Your task to perform on an android device: change the clock display to digital Image 0: 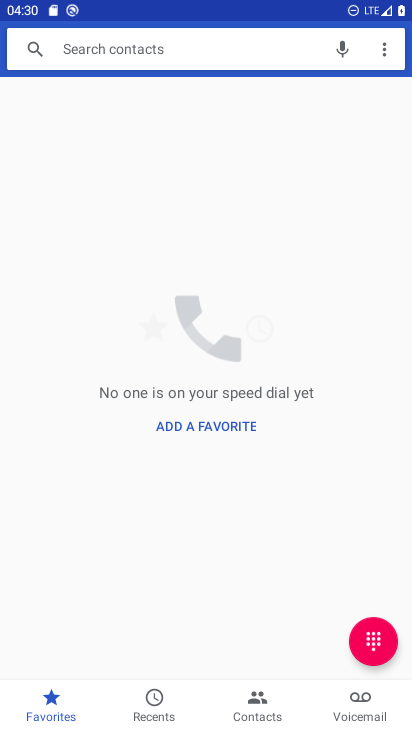
Step 0: press home button
Your task to perform on an android device: change the clock display to digital Image 1: 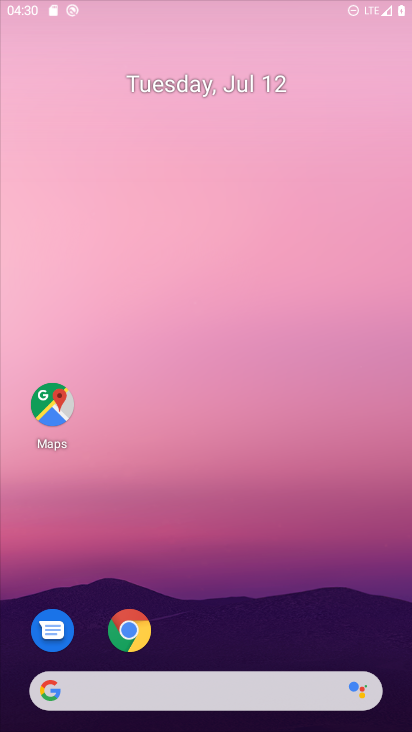
Step 1: drag from (314, 705) to (284, 31)
Your task to perform on an android device: change the clock display to digital Image 2: 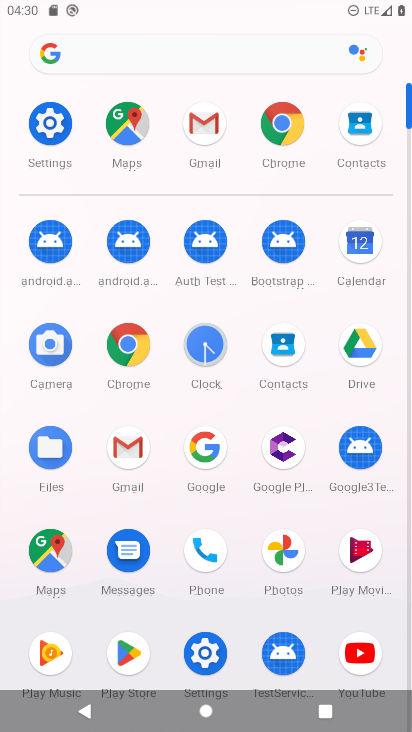
Step 2: click (197, 343)
Your task to perform on an android device: change the clock display to digital Image 3: 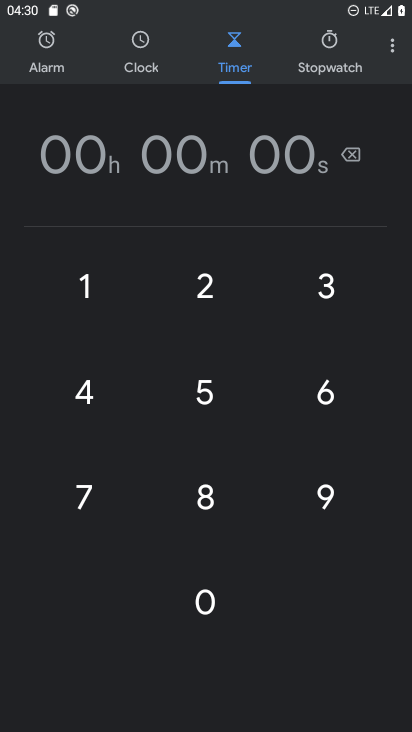
Step 3: click (392, 49)
Your task to perform on an android device: change the clock display to digital Image 4: 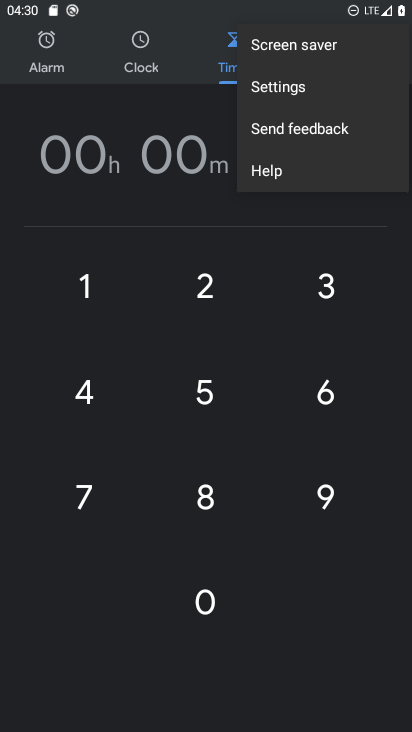
Step 4: click (296, 85)
Your task to perform on an android device: change the clock display to digital Image 5: 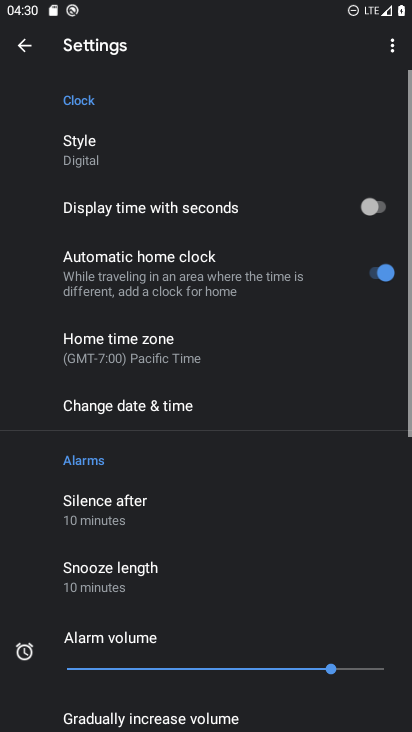
Step 5: click (135, 145)
Your task to perform on an android device: change the clock display to digital Image 6: 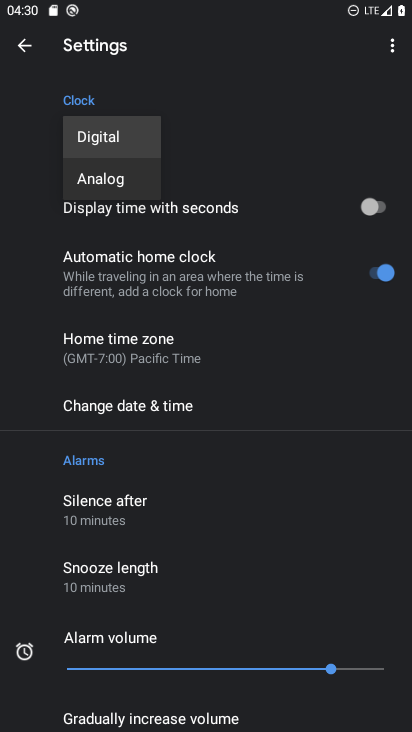
Step 6: click (101, 171)
Your task to perform on an android device: change the clock display to digital Image 7: 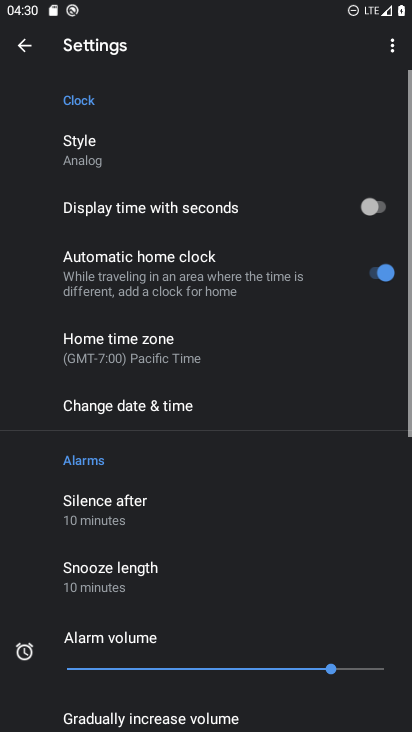
Step 7: task complete